Your task to perform on an android device: Show me recent news Image 0: 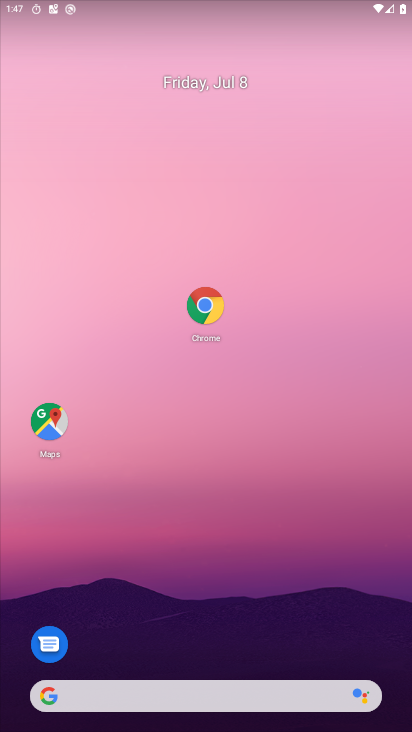
Step 0: drag from (217, 633) to (263, 255)
Your task to perform on an android device: Show me recent news Image 1: 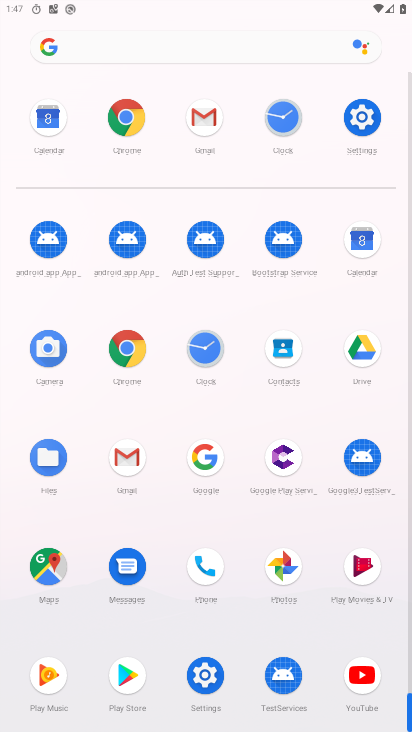
Step 1: click (197, 461)
Your task to perform on an android device: Show me recent news Image 2: 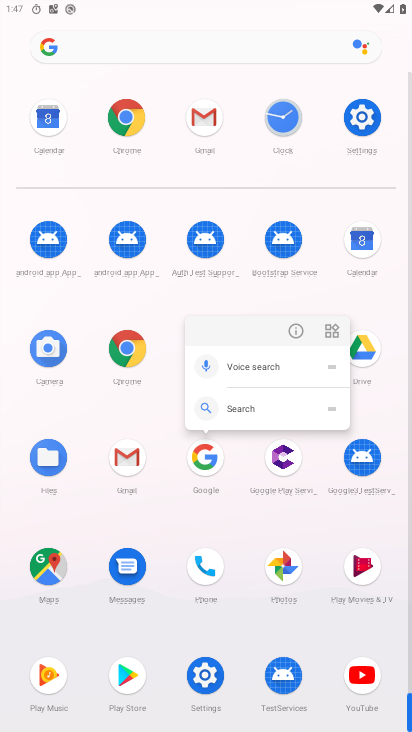
Step 2: click (200, 466)
Your task to perform on an android device: Show me recent news Image 3: 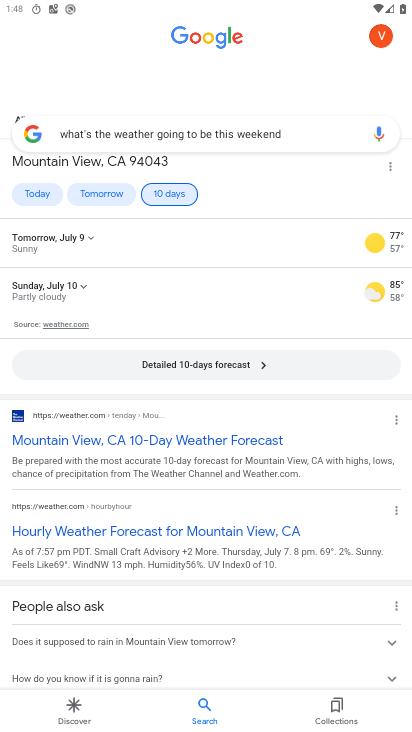
Step 3: click (205, 129)
Your task to perform on an android device: Show me recent news Image 4: 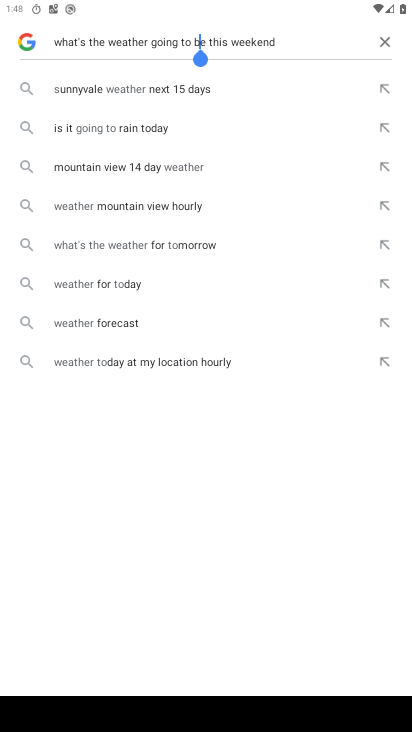
Step 4: click (380, 39)
Your task to perform on an android device: Show me recent news Image 5: 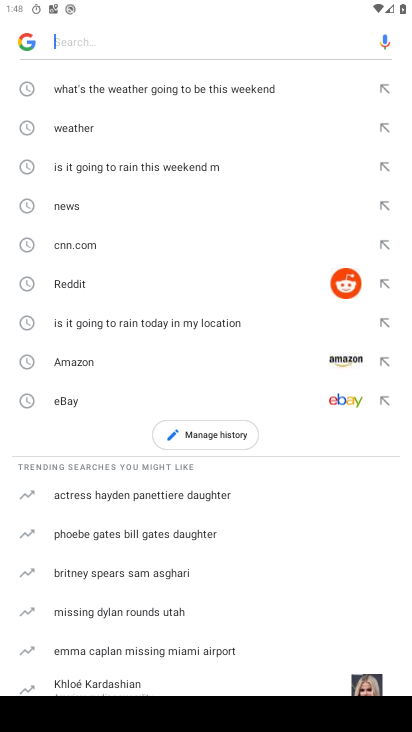
Step 5: click (56, 202)
Your task to perform on an android device: Show me recent news Image 6: 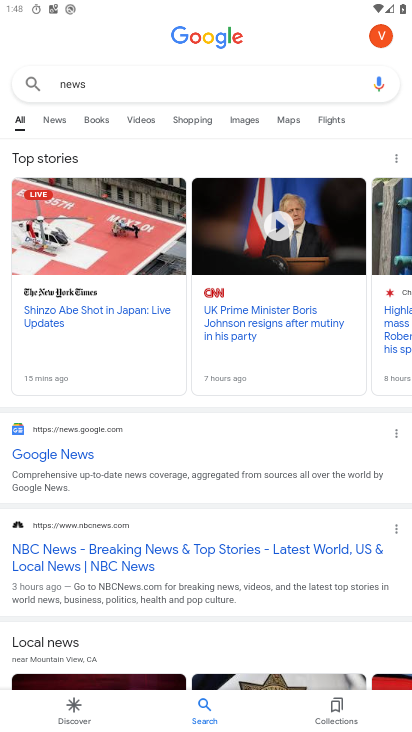
Step 6: task complete